Your task to perform on an android device: check battery use Image 0: 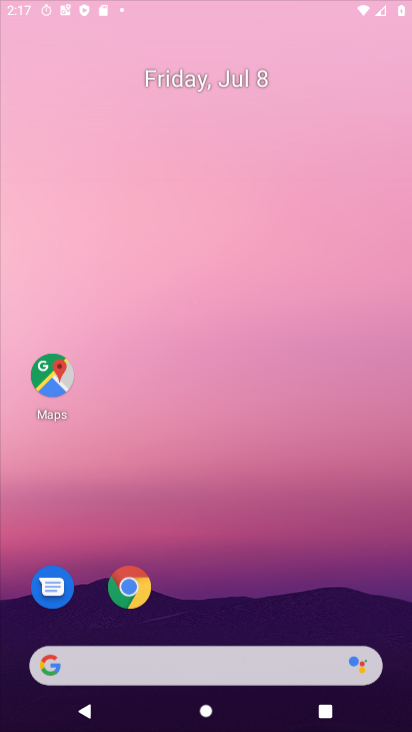
Step 0: press home button
Your task to perform on an android device: check battery use Image 1: 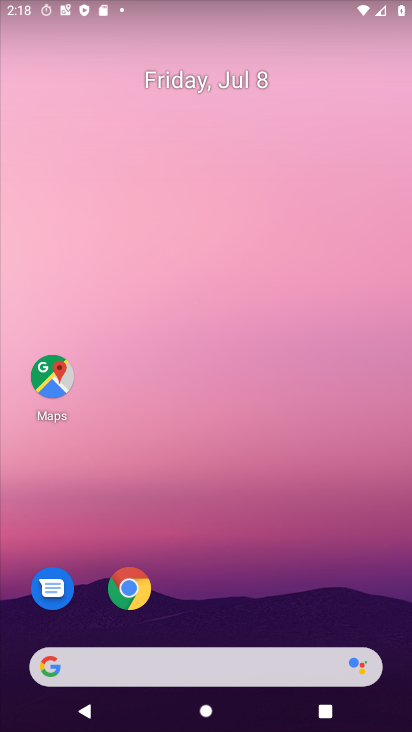
Step 1: press home button
Your task to perform on an android device: check battery use Image 2: 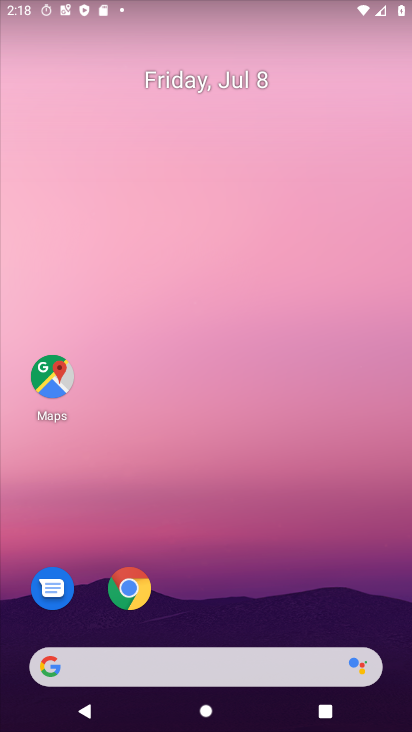
Step 2: drag from (267, 631) to (213, 152)
Your task to perform on an android device: check battery use Image 3: 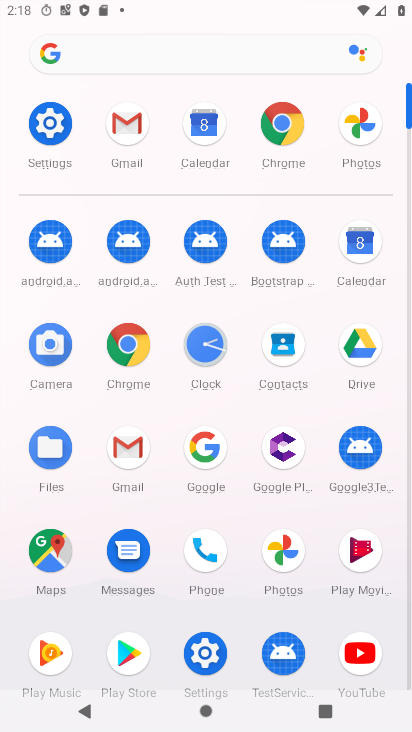
Step 3: click (48, 115)
Your task to perform on an android device: check battery use Image 4: 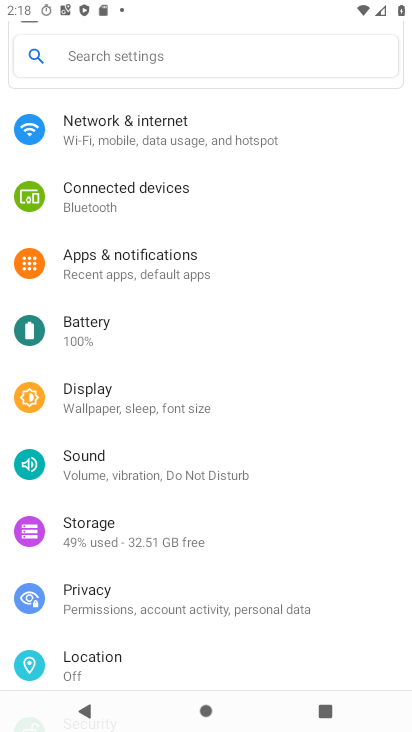
Step 4: click (101, 334)
Your task to perform on an android device: check battery use Image 5: 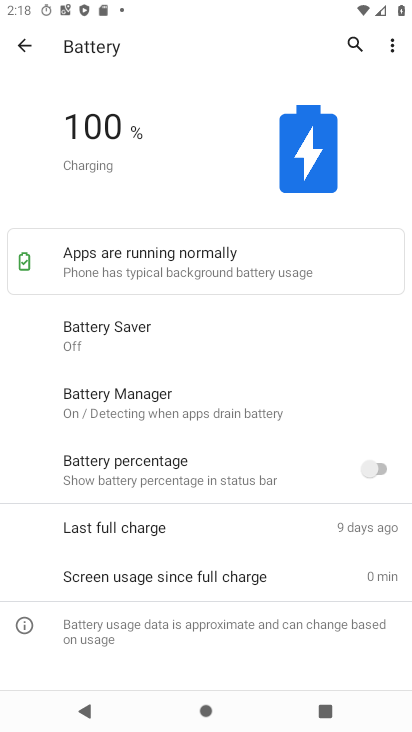
Step 5: click (394, 43)
Your task to perform on an android device: check battery use Image 6: 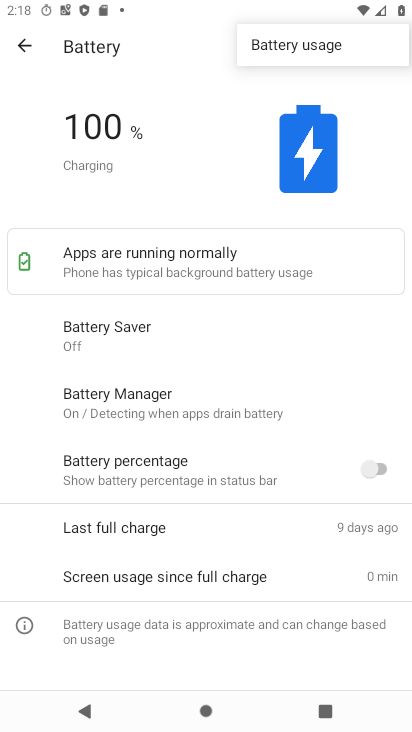
Step 6: click (297, 43)
Your task to perform on an android device: check battery use Image 7: 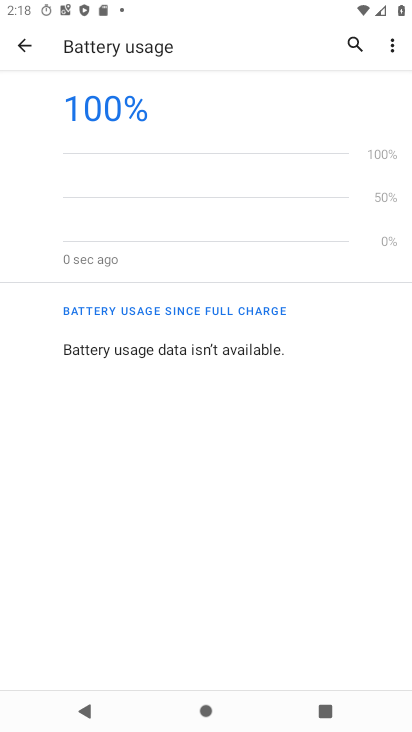
Step 7: task complete